Your task to perform on an android device: turn off translation in the chrome app Image 0: 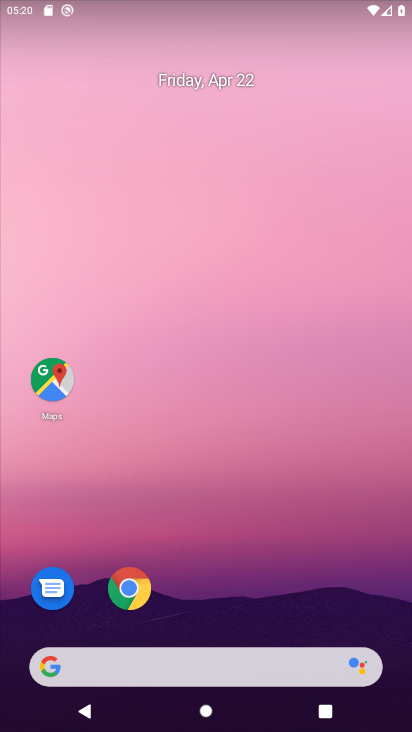
Step 0: press home button
Your task to perform on an android device: turn off translation in the chrome app Image 1: 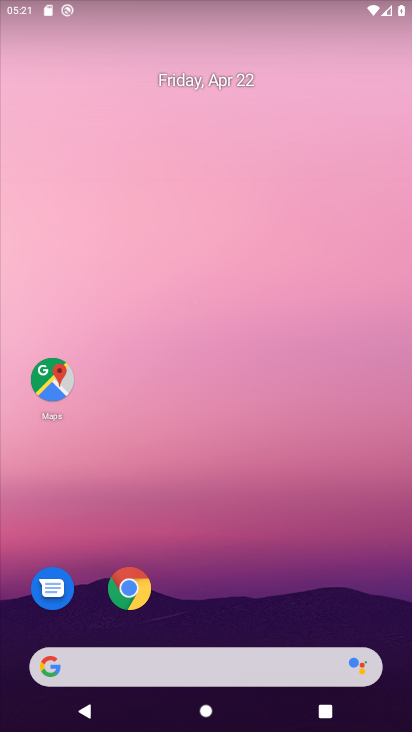
Step 1: click (138, 577)
Your task to perform on an android device: turn off translation in the chrome app Image 2: 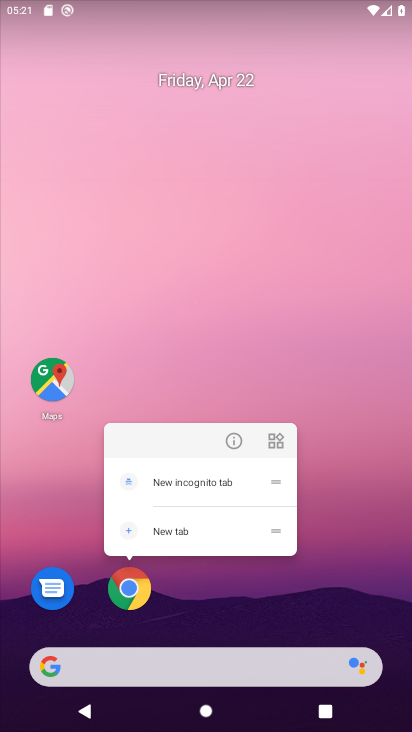
Step 2: click (132, 603)
Your task to perform on an android device: turn off translation in the chrome app Image 3: 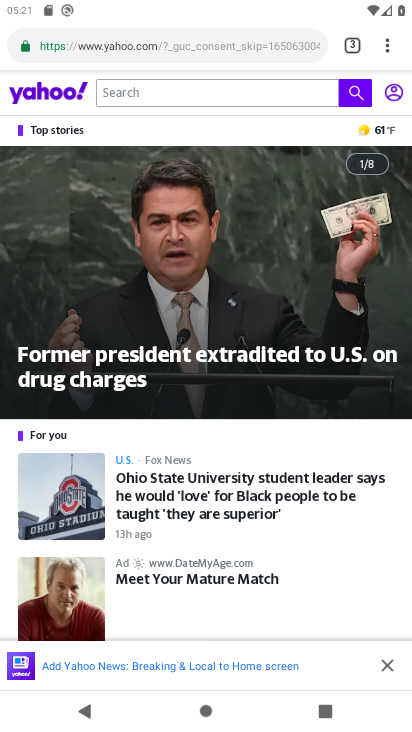
Step 3: click (394, 42)
Your task to perform on an android device: turn off translation in the chrome app Image 4: 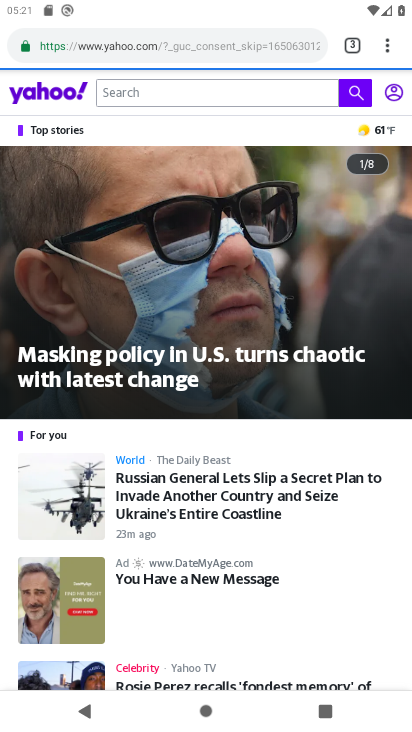
Step 4: click (387, 47)
Your task to perform on an android device: turn off translation in the chrome app Image 5: 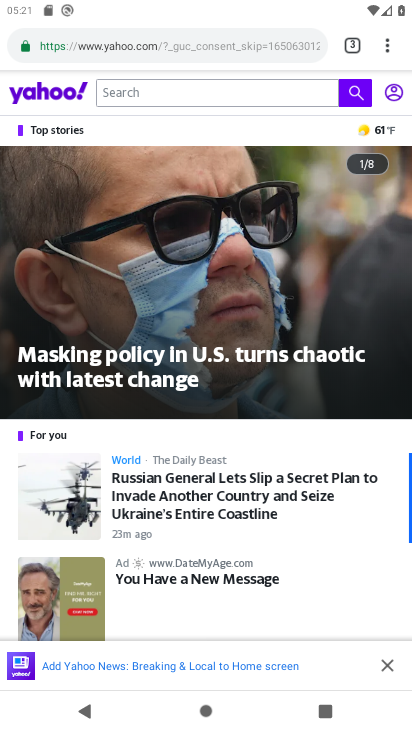
Step 5: click (374, 48)
Your task to perform on an android device: turn off translation in the chrome app Image 6: 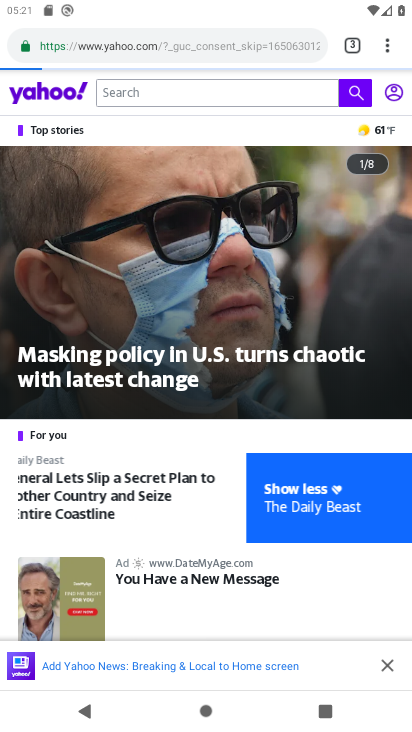
Step 6: click (385, 40)
Your task to perform on an android device: turn off translation in the chrome app Image 7: 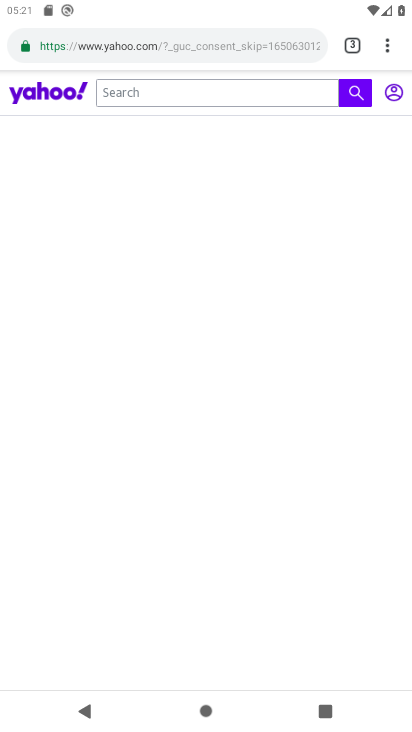
Step 7: click (389, 43)
Your task to perform on an android device: turn off translation in the chrome app Image 8: 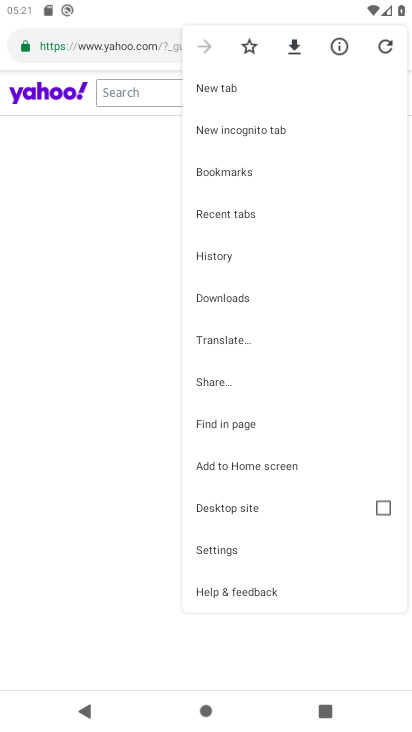
Step 8: click (234, 548)
Your task to perform on an android device: turn off translation in the chrome app Image 9: 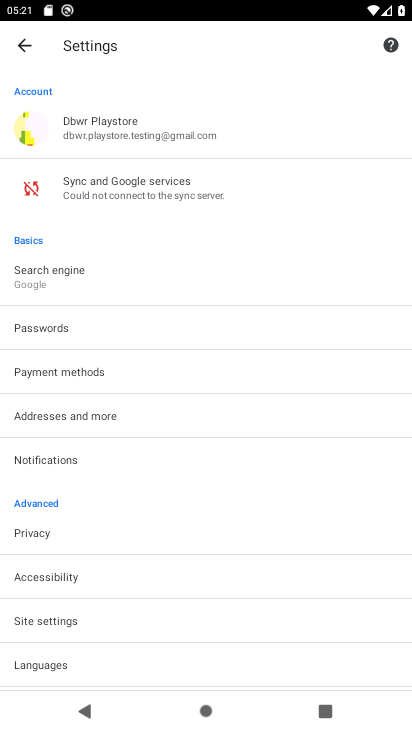
Step 9: click (61, 665)
Your task to perform on an android device: turn off translation in the chrome app Image 10: 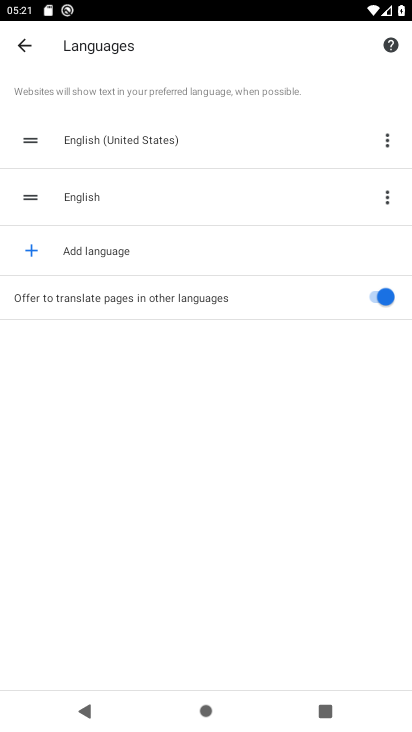
Step 10: click (384, 301)
Your task to perform on an android device: turn off translation in the chrome app Image 11: 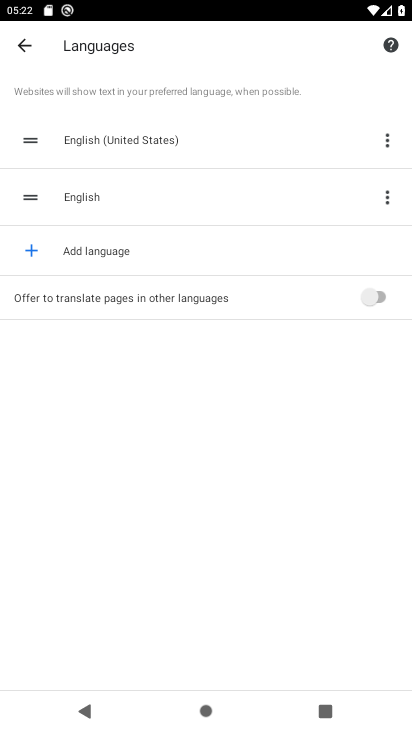
Step 11: task complete